Your task to perform on an android device: open chrome privacy settings Image 0: 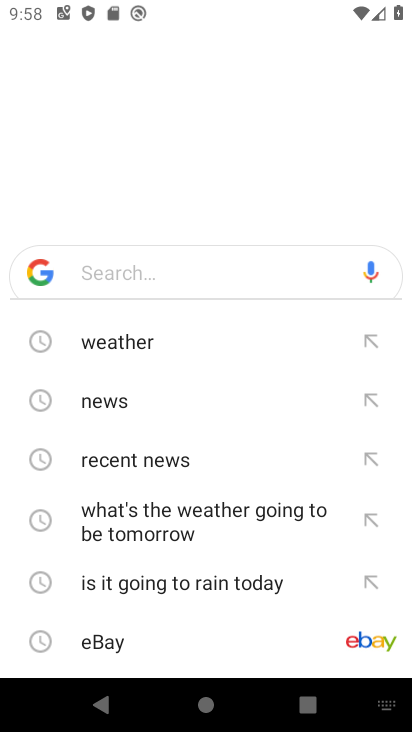
Step 0: press home button
Your task to perform on an android device: open chrome privacy settings Image 1: 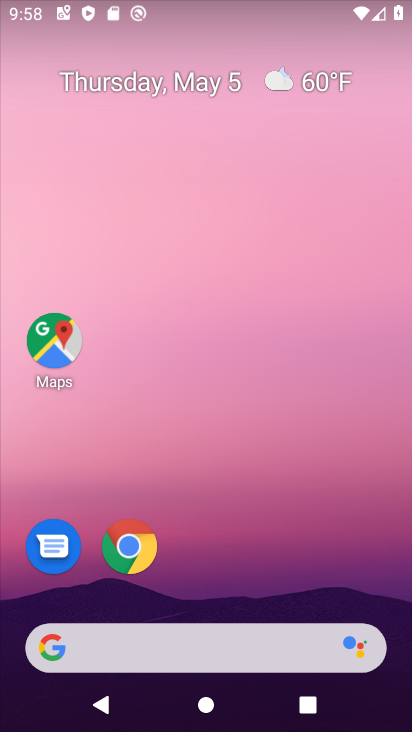
Step 1: click (130, 547)
Your task to perform on an android device: open chrome privacy settings Image 2: 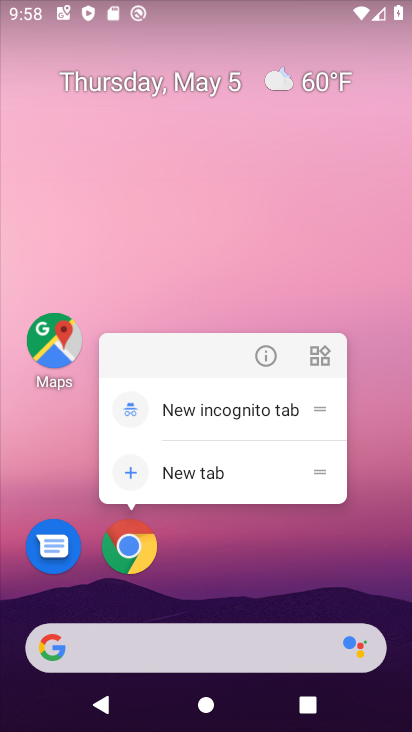
Step 2: click (131, 546)
Your task to perform on an android device: open chrome privacy settings Image 3: 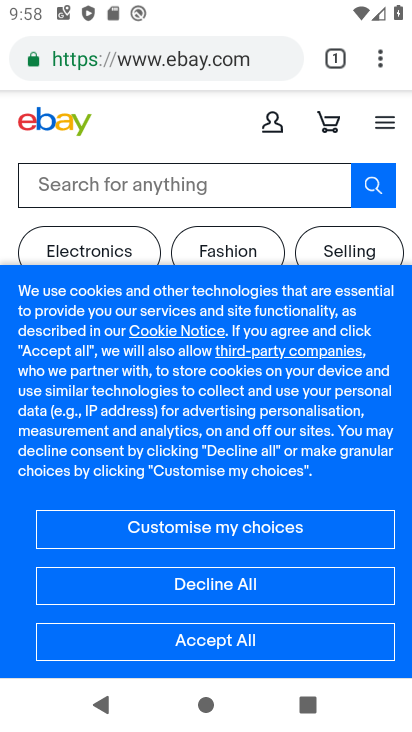
Step 3: click (380, 55)
Your task to perform on an android device: open chrome privacy settings Image 4: 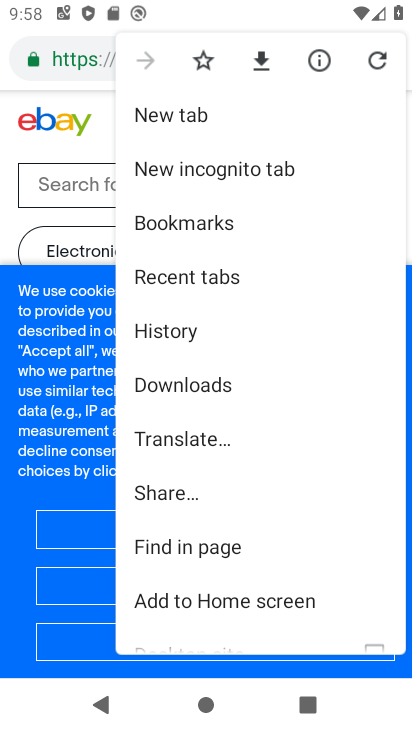
Step 4: drag from (171, 577) to (173, 345)
Your task to perform on an android device: open chrome privacy settings Image 5: 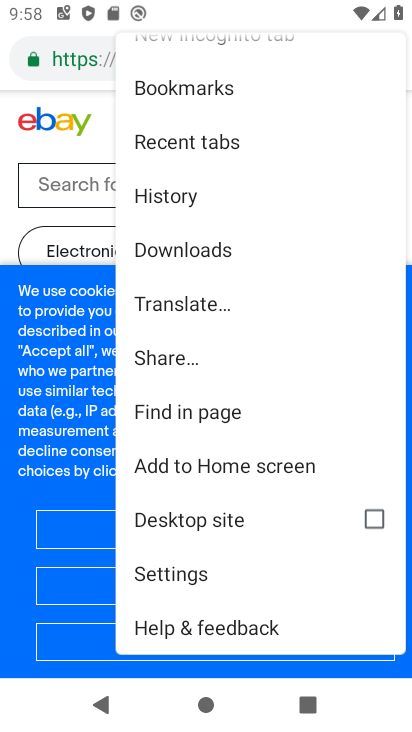
Step 5: click (182, 579)
Your task to perform on an android device: open chrome privacy settings Image 6: 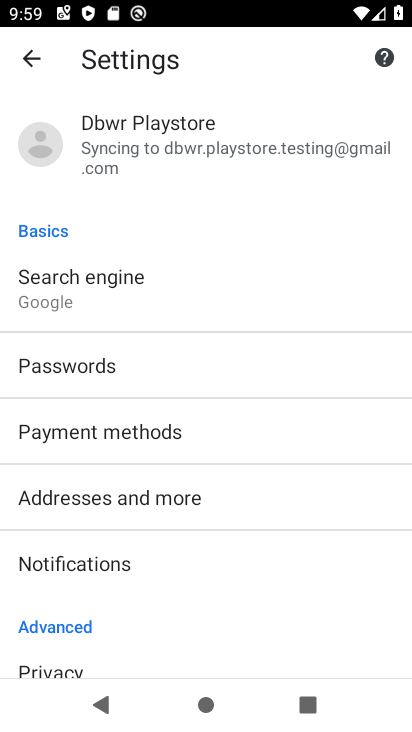
Step 6: drag from (118, 629) to (122, 501)
Your task to perform on an android device: open chrome privacy settings Image 7: 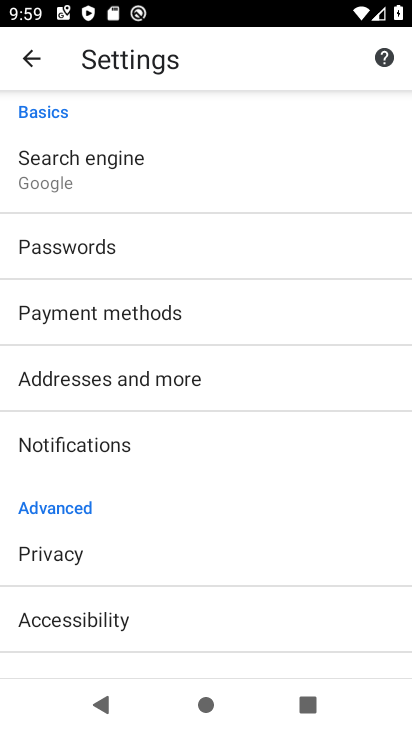
Step 7: drag from (165, 594) to (195, 432)
Your task to perform on an android device: open chrome privacy settings Image 8: 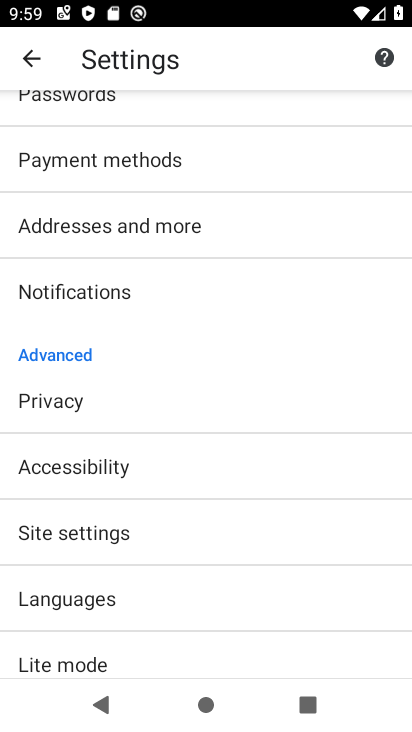
Step 8: drag from (124, 334) to (148, 718)
Your task to perform on an android device: open chrome privacy settings Image 9: 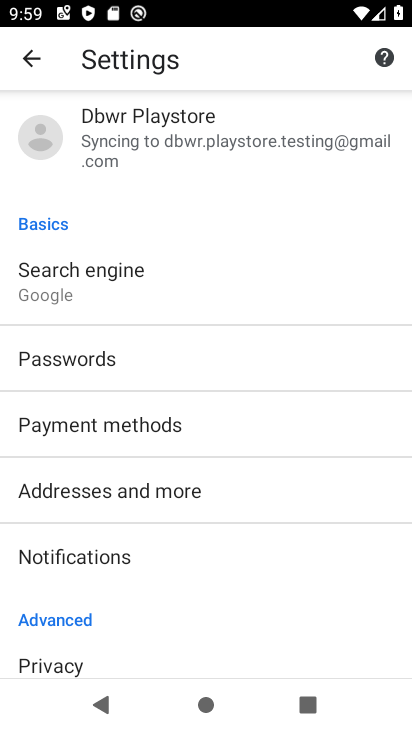
Step 9: click (91, 666)
Your task to perform on an android device: open chrome privacy settings Image 10: 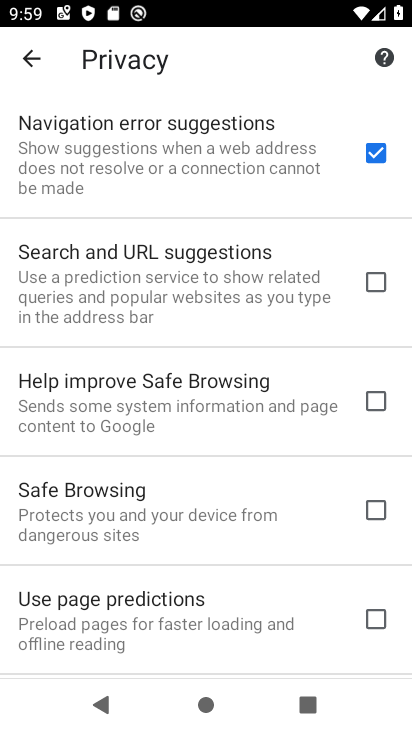
Step 10: task complete